Your task to perform on an android device: When is my next meeting? Image 0: 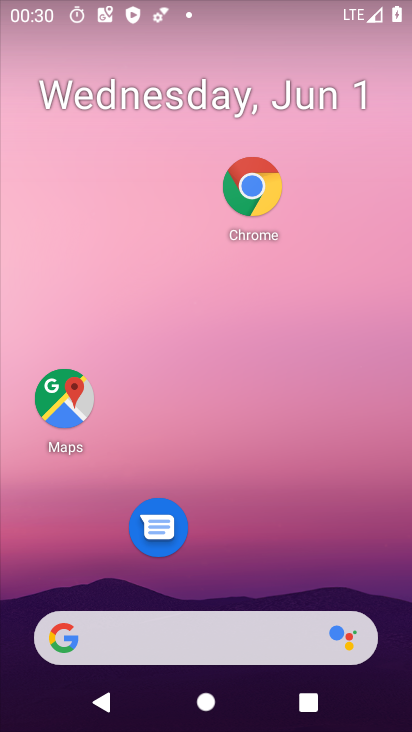
Step 0: click (206, 86)
Your task to perform on an android device: When is my next meeting? Image 1: 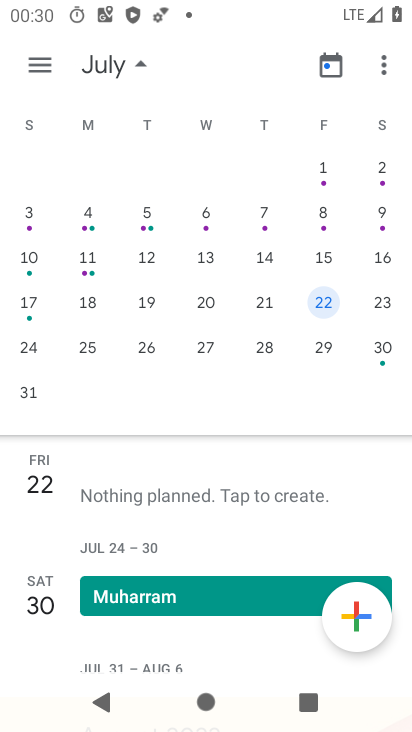
Step 1: drag from (38, 262) to (409, 121)
Your task to perform on an android device: When is my next meeting? Image 2: 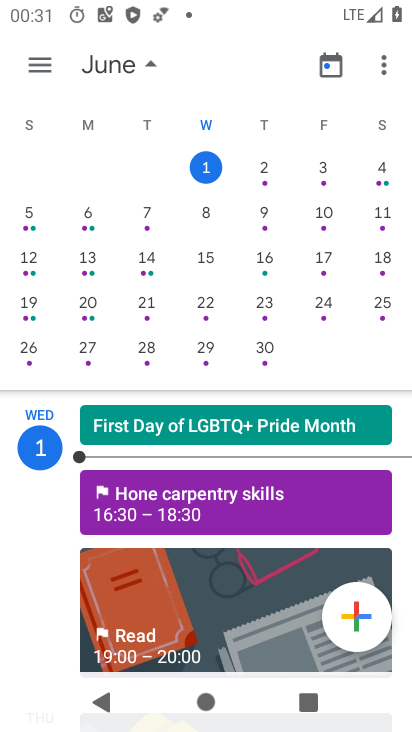
Step 2: click (212, 161)
Your task to perform on an android device: When is my next meeting? Image 3: 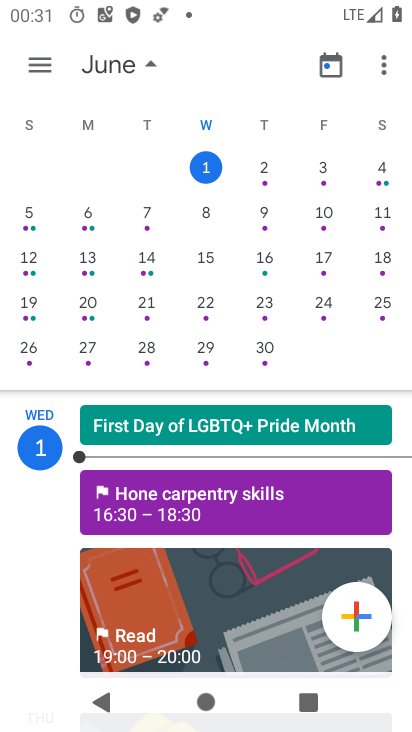
Step 3: task complete